Your task to perform on an android device: Open display settings Image 0: 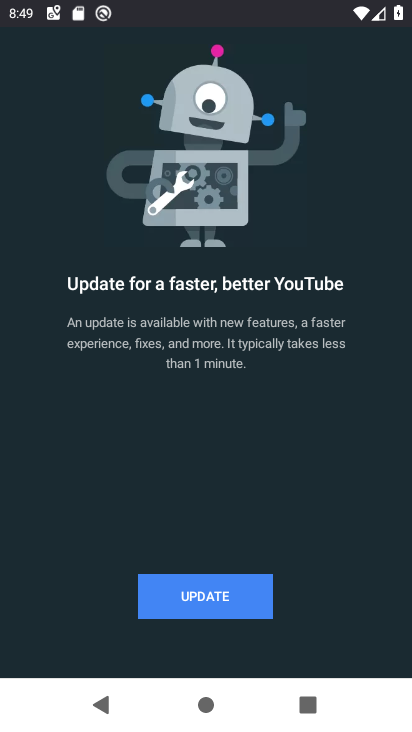
Step 0: press home button
Your task to perform on an android device: Open display settings Image 1: 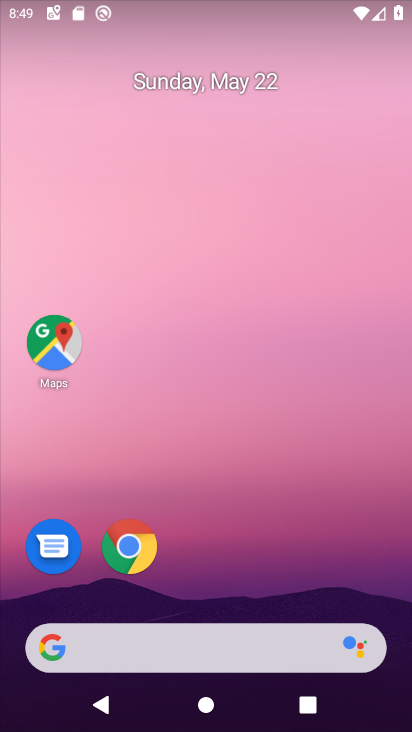
Step 1: drag from (388, 590) to (353, 249)
Your task to perform on an android device: Open display settings Image 2: 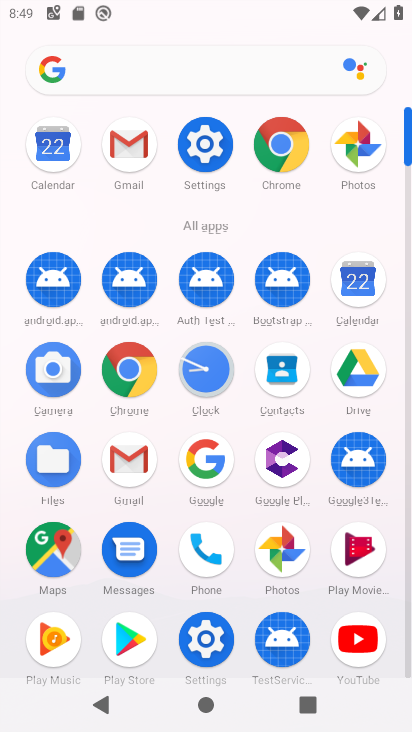
Step 2: click (206, 159)
Your task to perform on an android device: Open display settings Image 3: 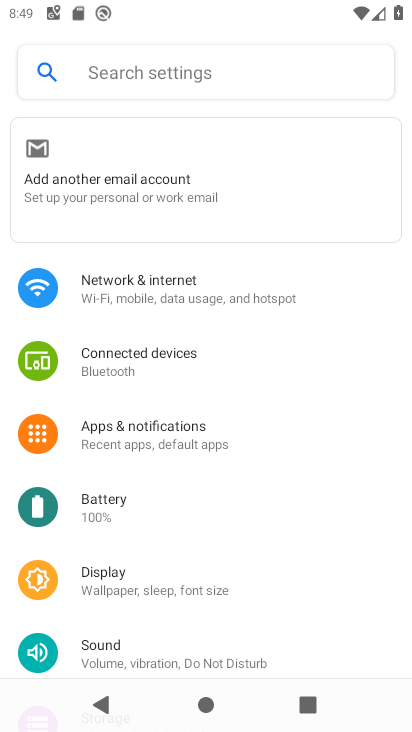
Step 3: drag from (315, 522) to (319, 382)
Your task to perform on an android device: Open display settings Image 4: 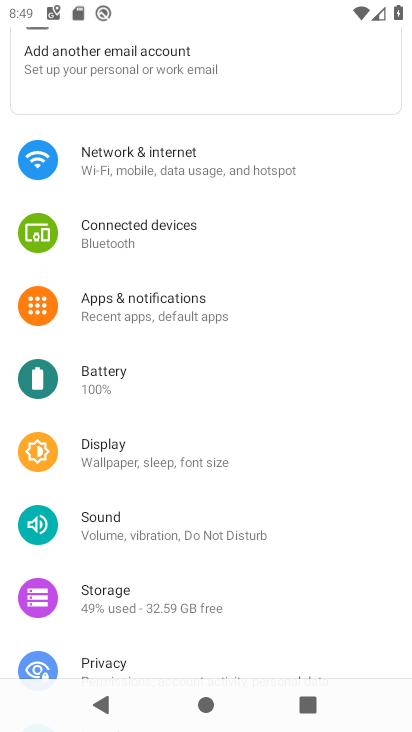
Step 4: drag from (327, 570) to (327, 459)
Your task to perform on an android device: Open display settings Image 5: 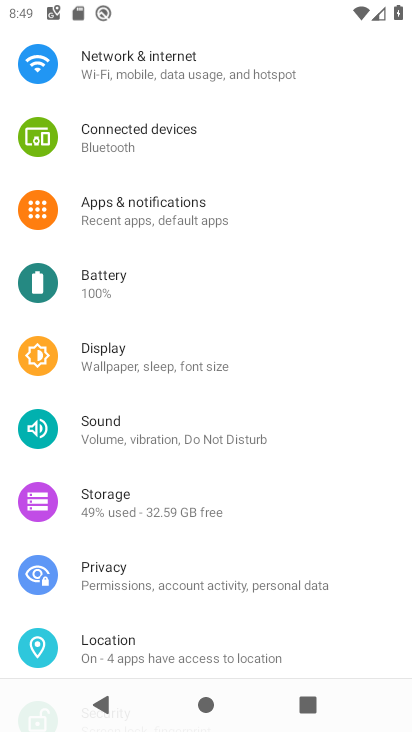
Step 5: drag from (323, 618) to (325, 465)
Your task to perform on an android device: Open display settings Image 6: 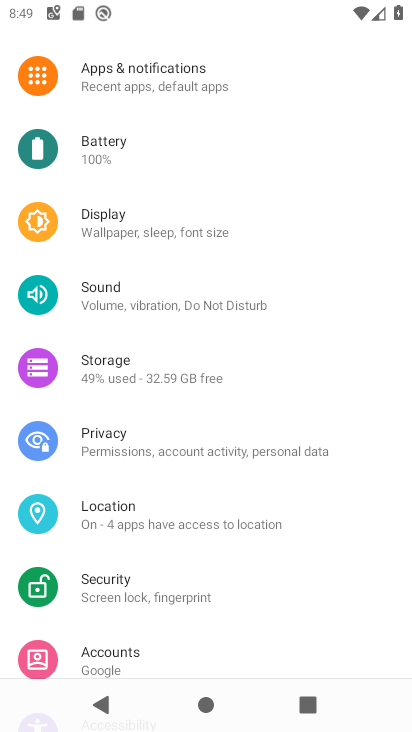
Step 6: drag from (340, 620) to (333, 460)
Your task to perform on an android device: Open display settings Image 7: 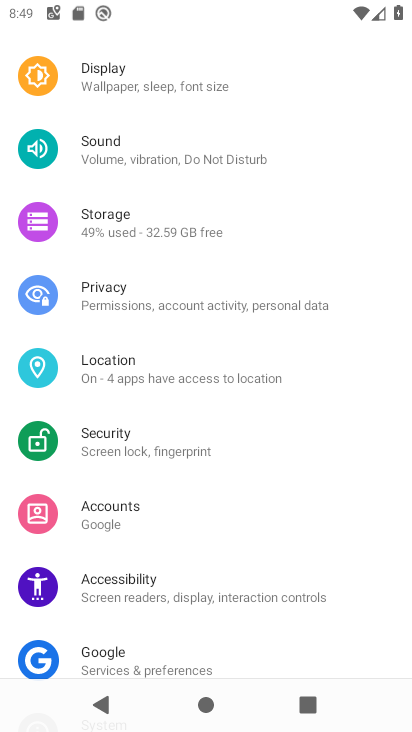
Step 7: drag from (352, 612) to (358, 465)
Your task to perform on an android device: Open display settings Image 8: 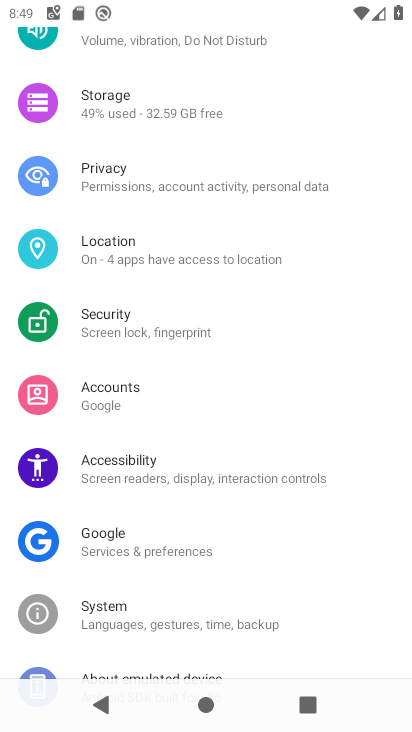
Step 8: drag from (372, 587) to (360, 450)
Your task to perform on an android device: Open display settings Image 9: 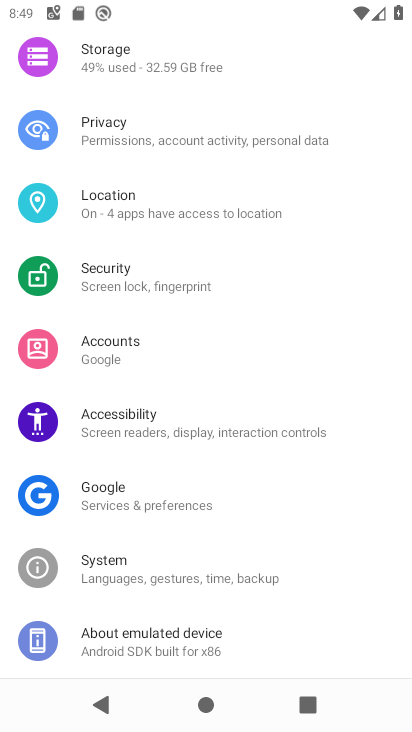
Step 9: drag from (355, 592) to (355, 413)
Your task to perform on an android device: Open display settings Image 10: 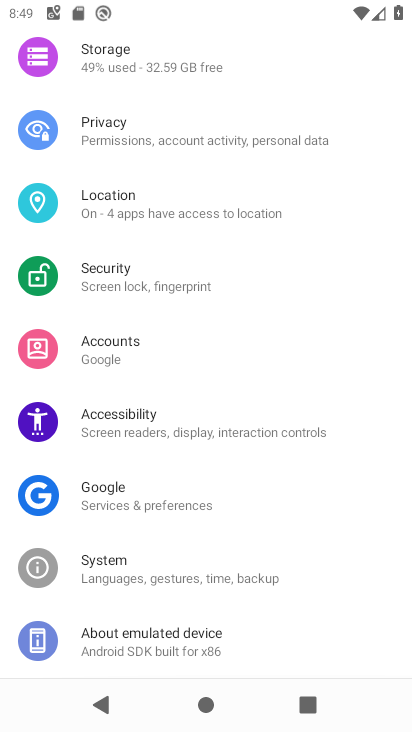
Step 10: drag from (353, 317) to (347, 460)
Your task to perform on an android device: Open display settings Image 11: 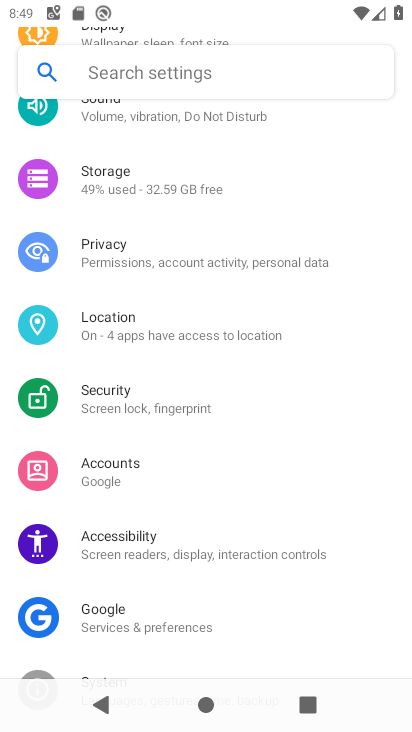
Step 11: drag from (364, 343) to (364, 465)
Your task to perform on an android device: Open display settings Image 12: 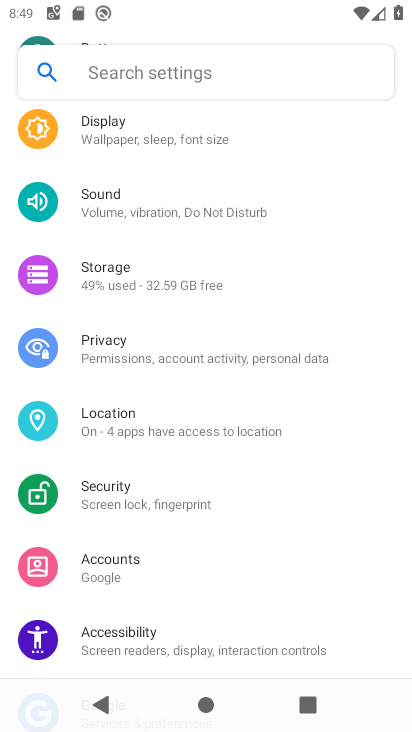
Step 12: drag from (360, 359) to (364, 450)
Your task to perform on an android device: Open display settings Image 13: 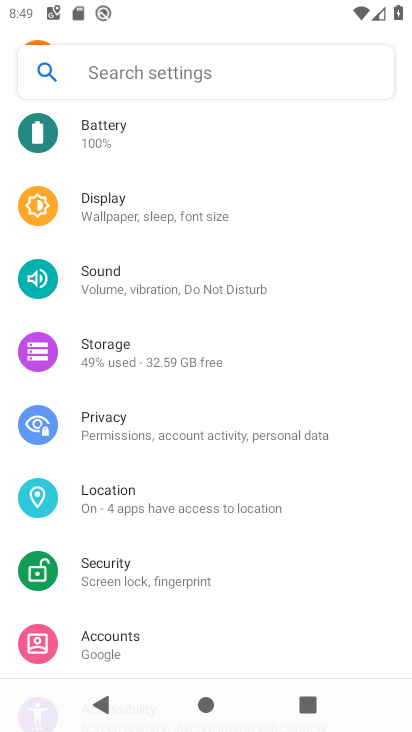
Step 13: drag from (354, 351) to (359, 448)
Your task to perform on an android device: Open display settings Image 14: 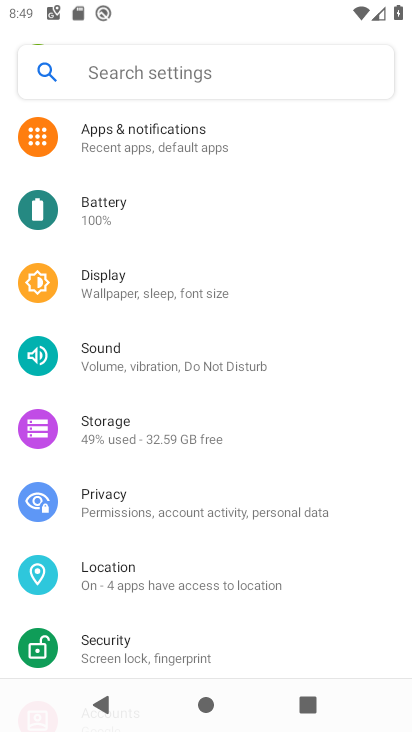
Step 14: drag from (355, 346) to (355, 454)
Your task to perform on an android device: Open display settings Image 15: 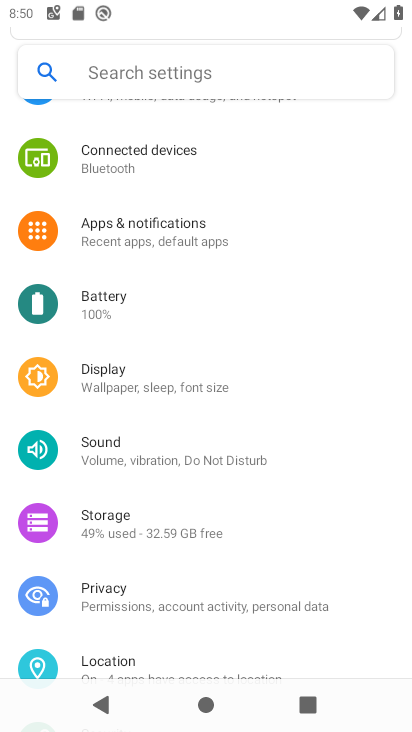
Step 15: click (223, 382)
Your task to perform on an android device: Open display settings Image 16: 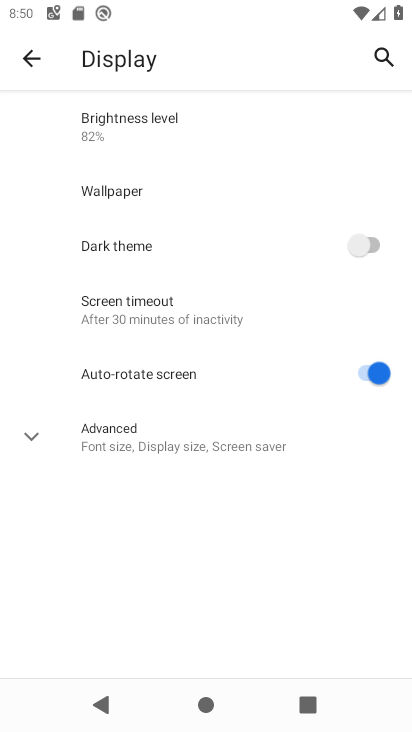
Step 16: click (254, 450)
Your task to perform on an android device: Open display settings Image 17: 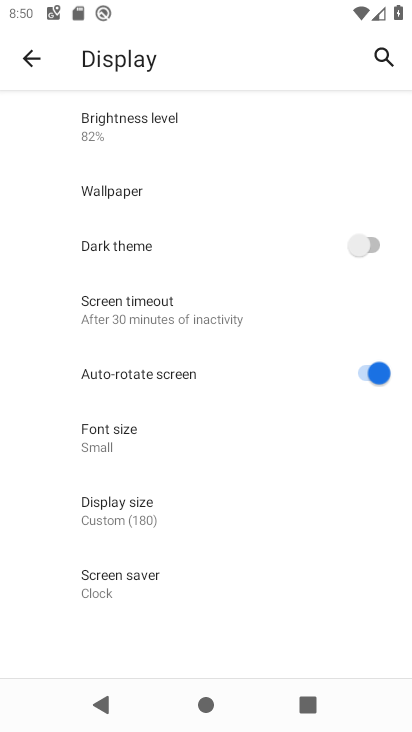
Step 17: task complete